Your task to perform on an android device: Open notification settings Image 0: 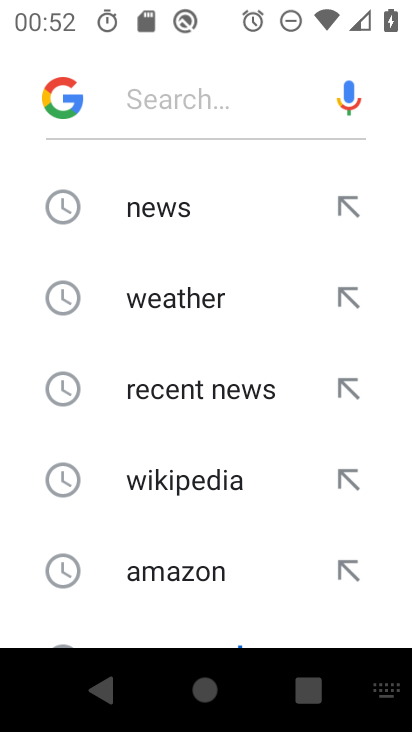
Step 0: press home button
Your task to perform on an android device: Open notification settings Image 1: 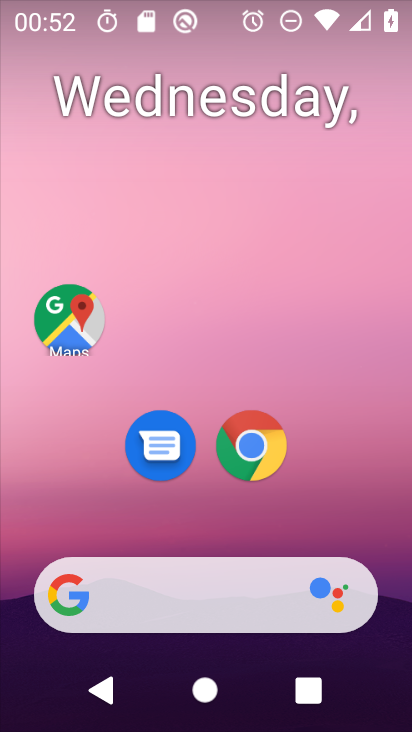
Step 1: drag from (318, 535) to (410, 191)
Your task to perform on an android device: Open notification settings Image 2: 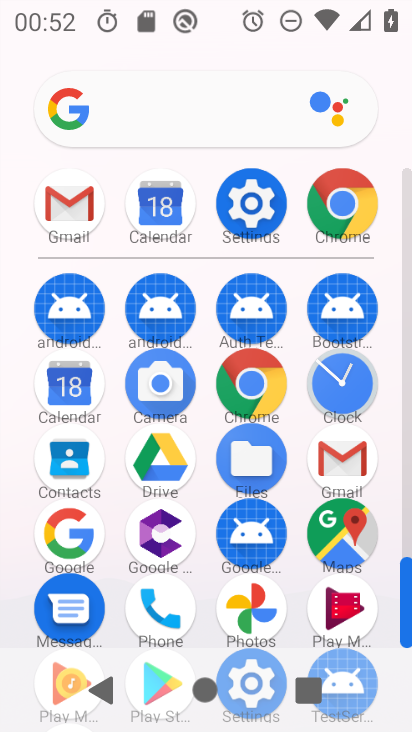
Step 2: click (263, 207)
Your task to perform on an android device: Open notification settings Image 3: 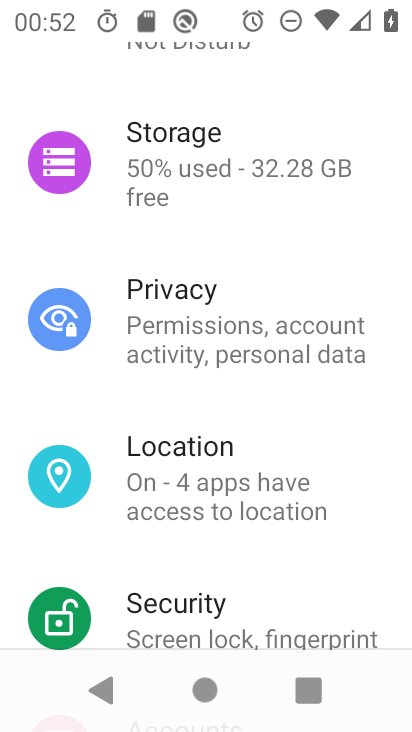
Step 3: drag from (311, 311) to (294, 613)
Your task to perform on an android device: Open notification settings Image 4: 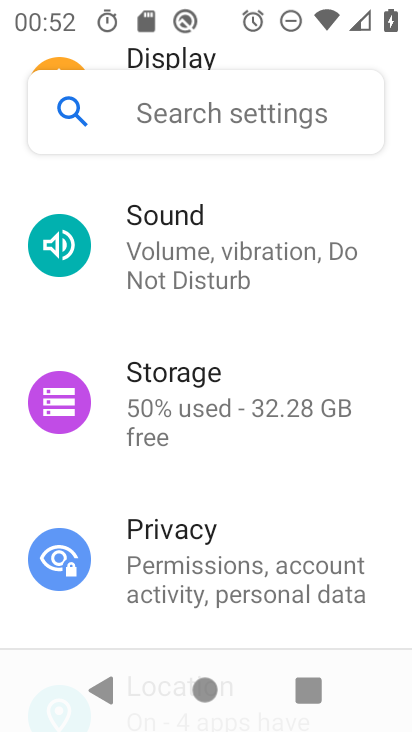
Step 4: drag from (288, 367) to (294, 637)
Your task to perform on an android device: Open notification settings Image 5: 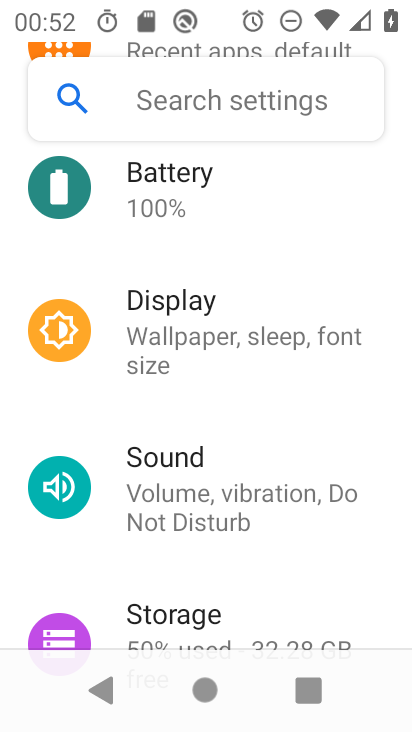
Step 5: drag from (304, 405) to (297, 611)
Your task to perform on an android device: Open notification settings Image 6: 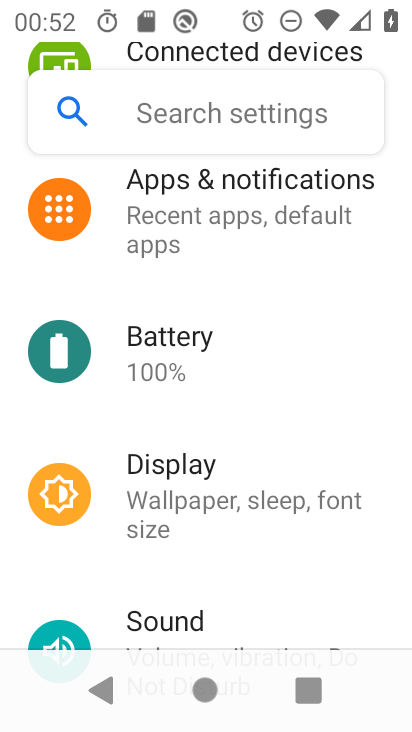
Step 6: drag from (294, 337) to (298, 500)
Your task to perform on an android device: Open notification settings Image 7: 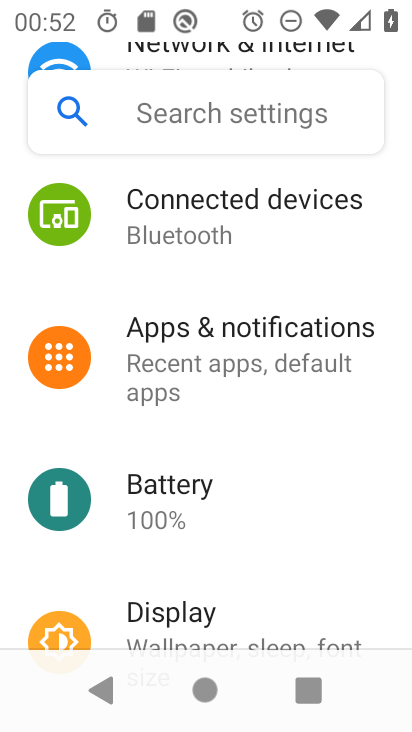
Step 7: click (296, 352)
Your task to perform on an android device: Open notification settings Image 8: 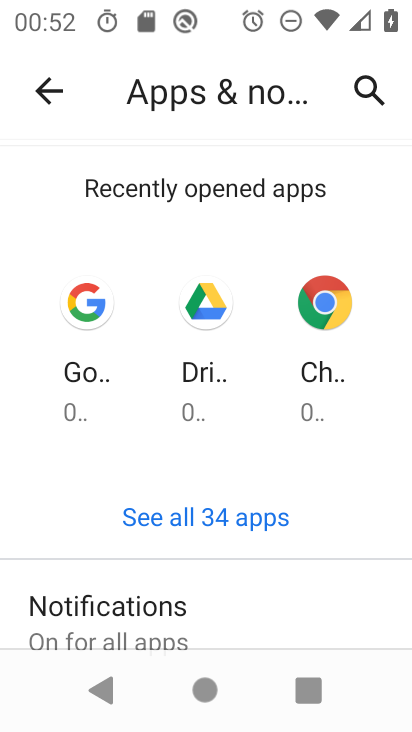
Step 8: click (292, 589)
Your task to perform on an android device: Open notification settings Image 9: 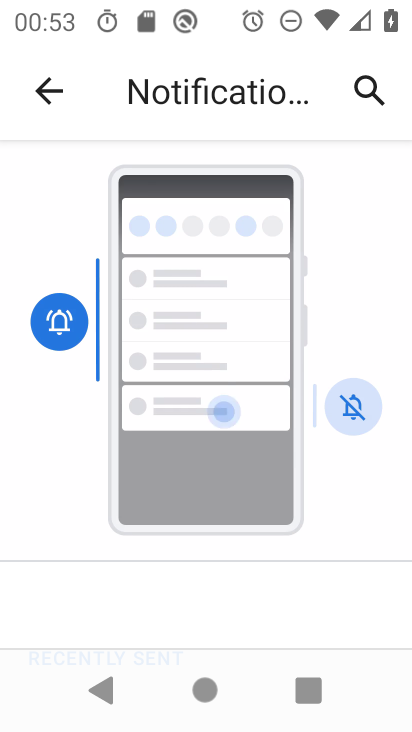
Step 9: task complete